Your task to perform on an android device: Go to Reddit.com Image 0: 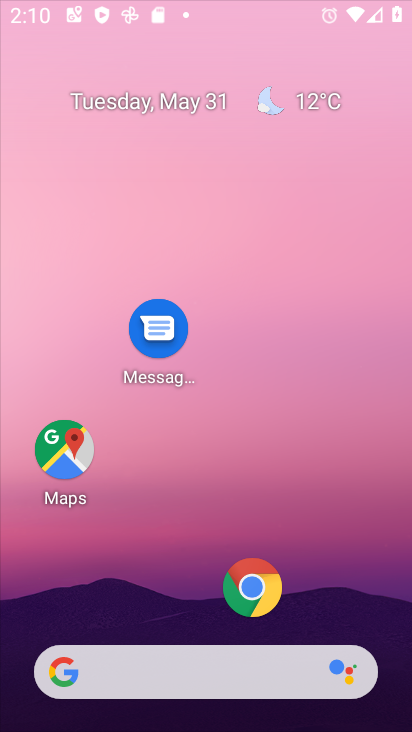
Step 0: click (116, 136)
Your task to perform on an android device: Go to Reddit.com Image 1: 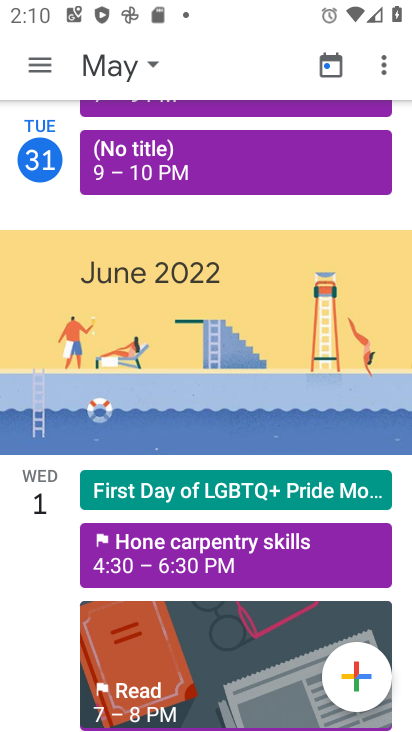
Step 1: press home button
Your task to perform on an android device: Go to Reddit.com Image 2: 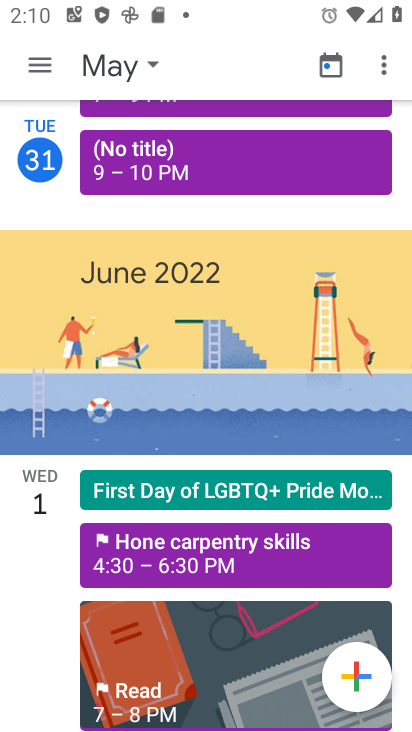
Step 2: drag from (199, 615) to (214, 19)
Your task to perform on an android device: Go to Reddit.com Image 3: 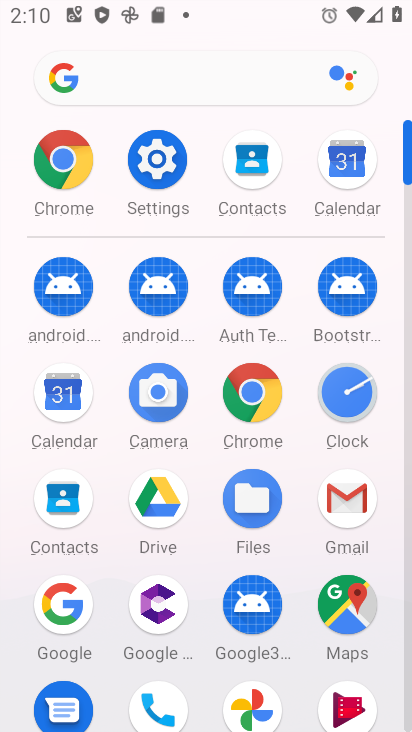
Step 3: click (160, 87)
Your task to perform on an android device: Go to Reddit.com Image 4: 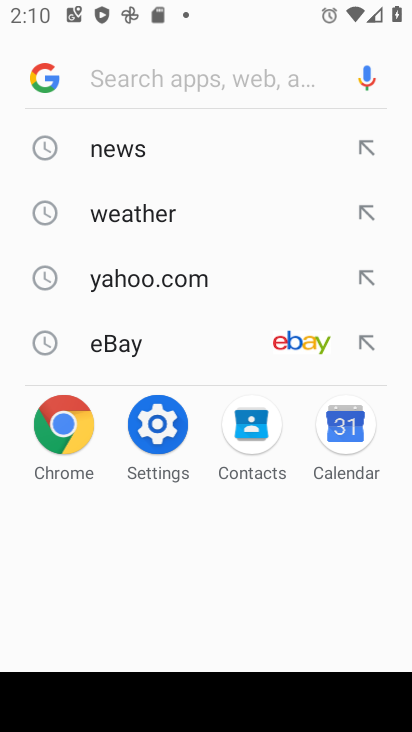
Step 4: type "Reddit.com"
Your task to perform on an android device: Go to Reddit.com Image 5: 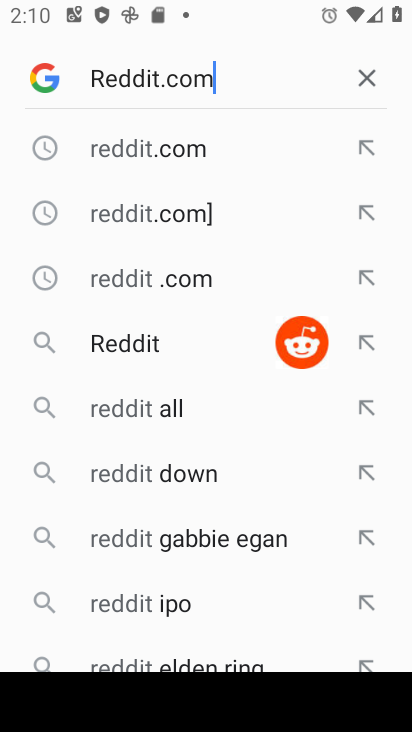
Step 5: type ""
Your task to perform on an android device: Go to Reddit.com Image 6: 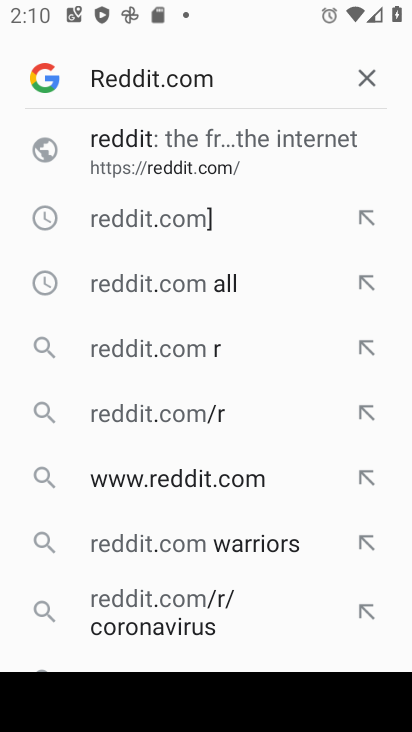
Step 6: click (135, 147)
Your task to perform on an android device: Go to Reddit.com Image 7: 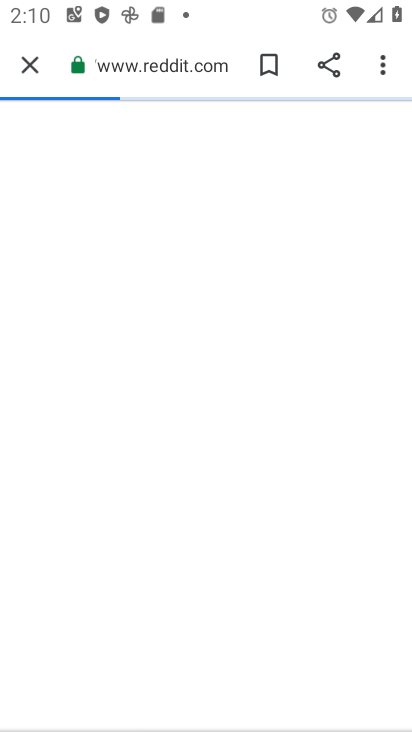
Step 7: task complete